Your task to perform on an android device: Open network settings Image 0: 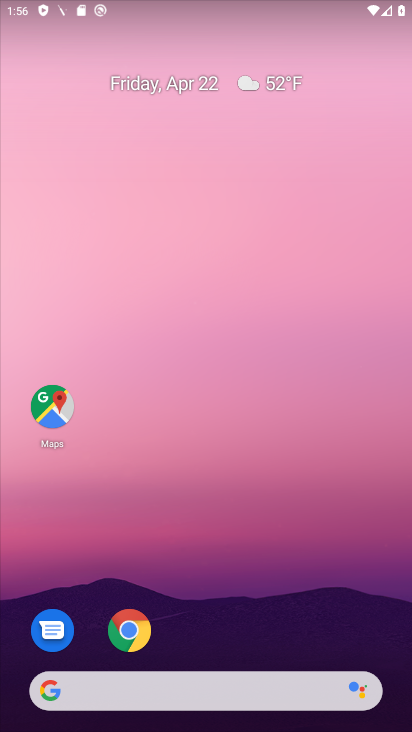
Step 0: drag from (265, 625) to (268, 194)
Your task to perform on an android device: Open network settings Image 1: 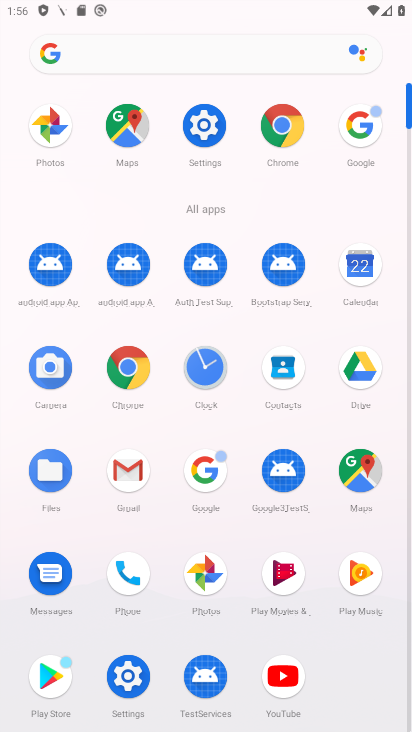
Step 1: click (195, 134)
Your task to perform on an android device: Open network settings Image 2: 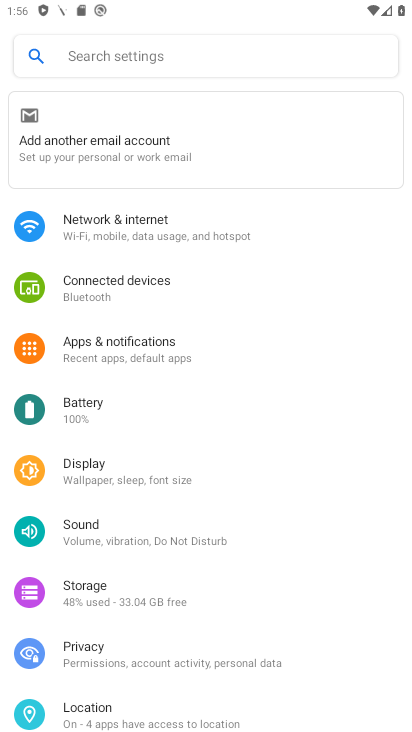
Step 2: click (149, 247)
Your task to perform on an android device: Open network settings Image 3: 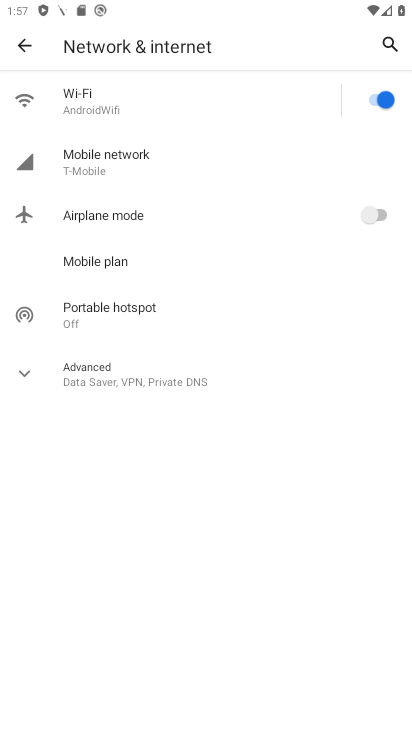
Step 3: task complete